Your task to perform on an android device: Open Google Maps Image 0: 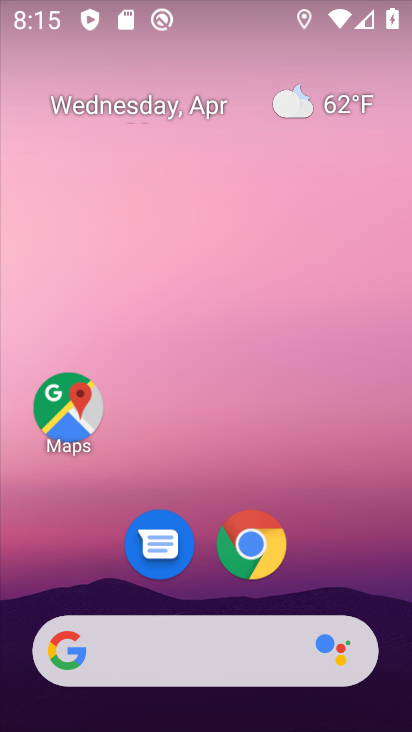
Step 0: click (83, 423)
Your task to perform on an android device: Open Google Maps Image 1: 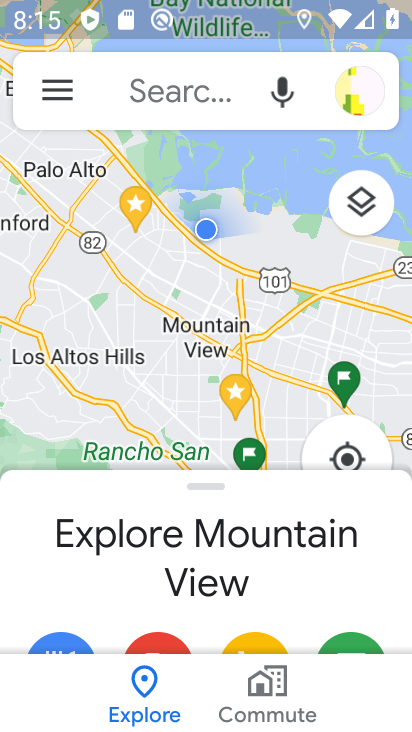
Step 1: task complete